Your task to perform on an android device: open chrome and create a bookmark for the current page Image 0: 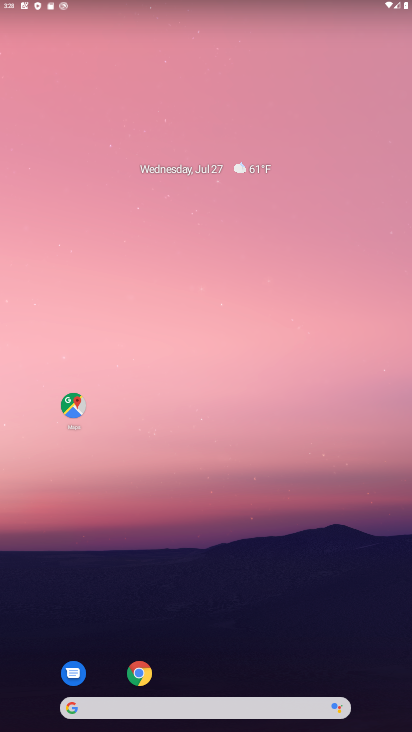
Step 0: click (139, 668)
Your task to perform on an android device: open chrome and create a bookmark for the current page Image 1: 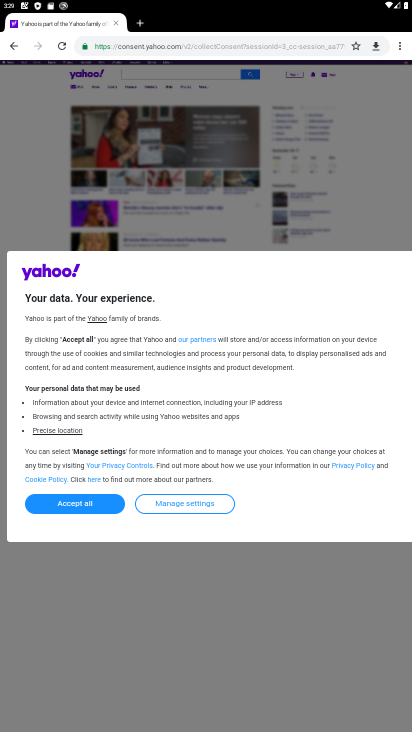
Step 1: click (345, 274)
Your task to perform on an android device: open chrome and create a bookmark for the current page Image 2: 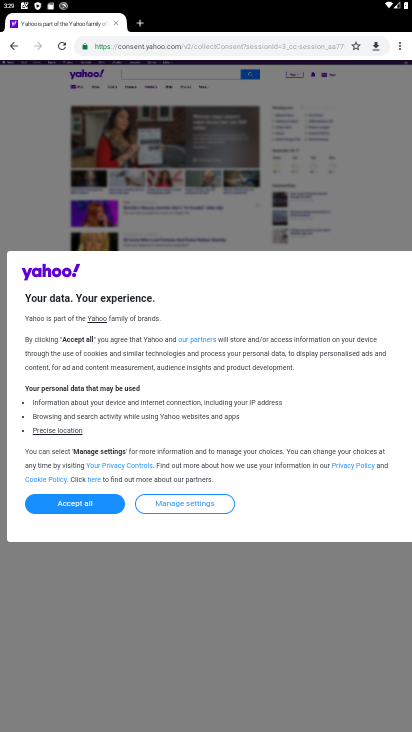
Step 2: click (403, 45)
Your task to perform on an android device: open chrome and create a bookmark for the current page Image 3: 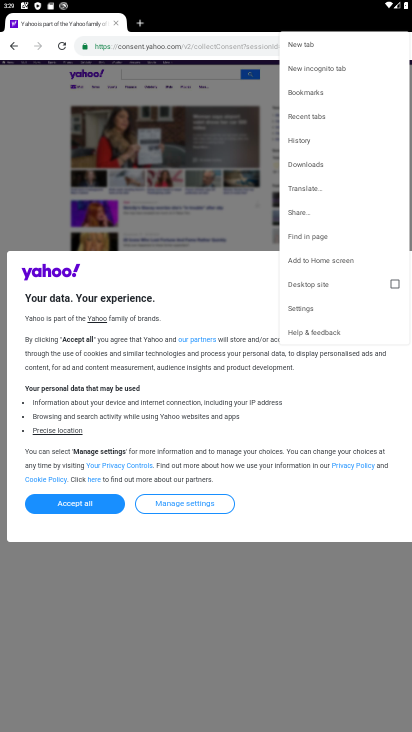
Step 3: click (261, 83)
Your task to perform on an android device: open chrome and create a bookmark for the current page Image 4: 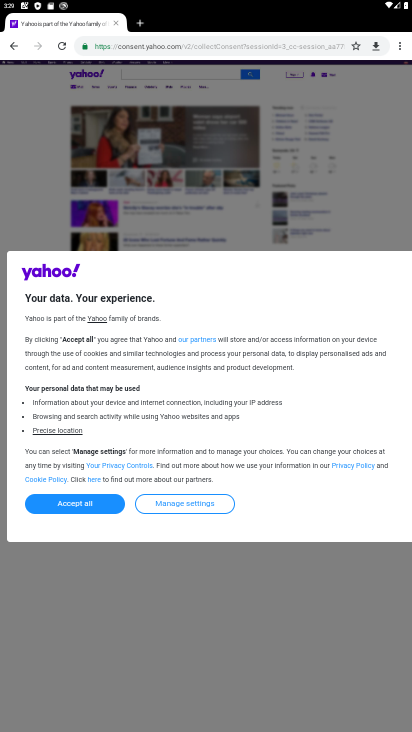
Step 4: click (357, 46)
Your task to perform on an android device: open chrome and create a bookmark for the current page Image 5: 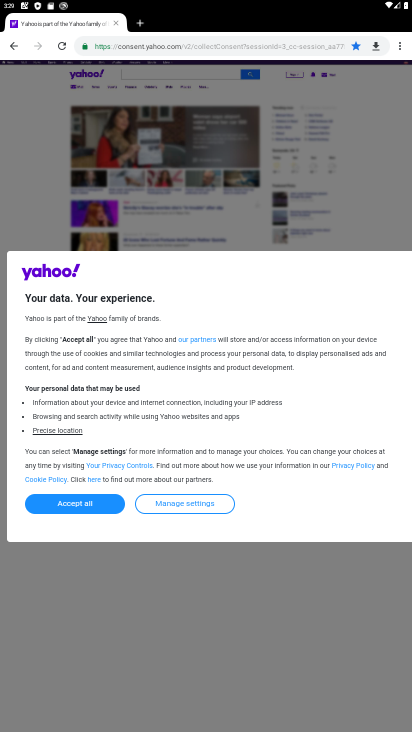
Step 5: task complete